Your task to perform on an android device: make emails show in primary in the gmail app Image 0: 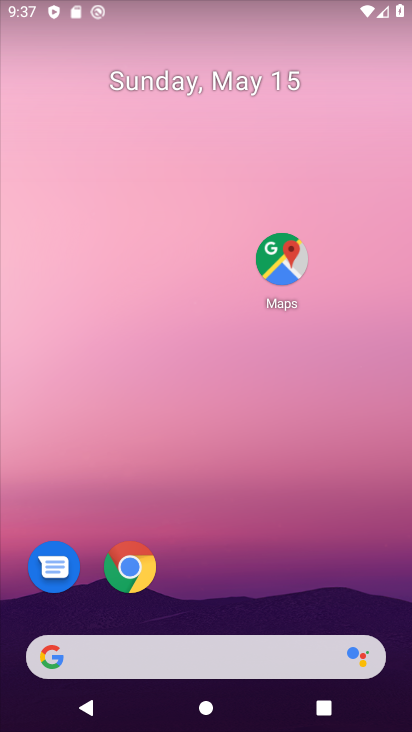
Step 0: drag from (273, 568) to (239, 148)
Your task to perform on an android device: make emails show in primary in the gmail app Image 1: 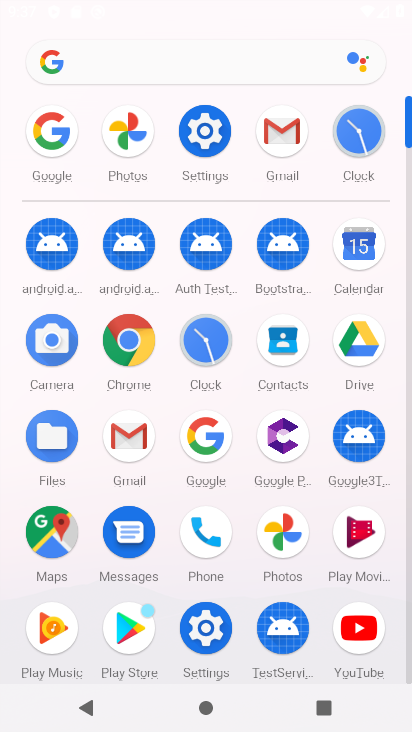
Step 1: click (280, 129)
Your task to perform on an android device: make emails show in primary in the gmail app Image 2: 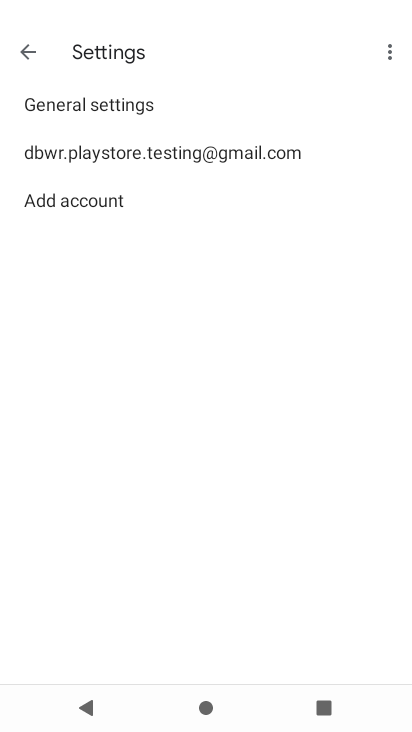
Step 2: click (67, 146)
Your task to perform on an android device: make emails show in primary in the gmail app Image 3: 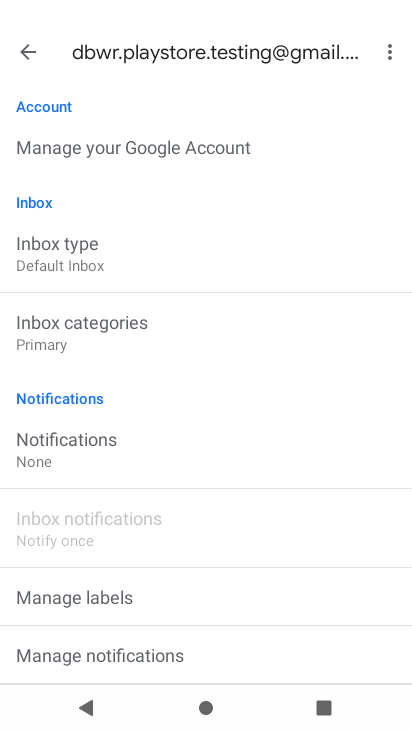
Step 3: task complete